Your task to perform on an android device: Go to wifi settings Image 0: 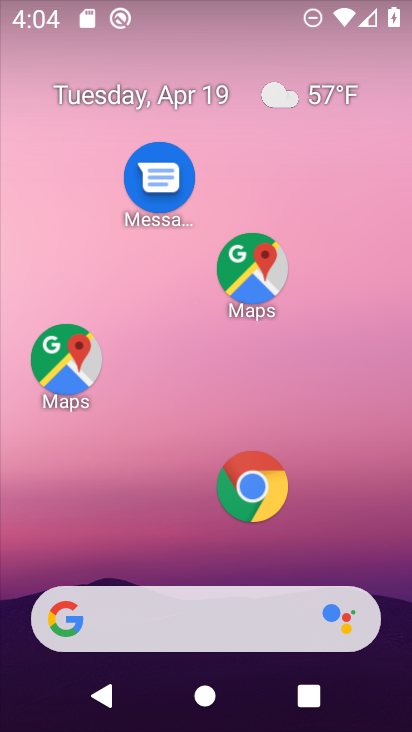
Step 0: drag from (339, 574) to (343, 77)
Your task to perform on an android device: Go to wifi settings Image 1: 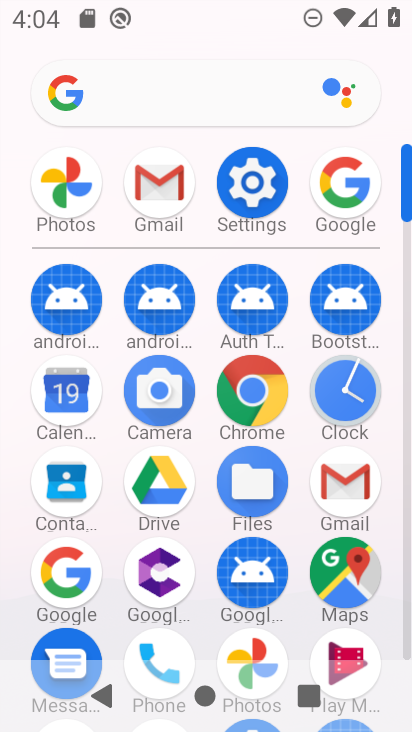
Step 1: click (257, 191)
Your task to perform on an android device: Go to wifi settings Image 2: 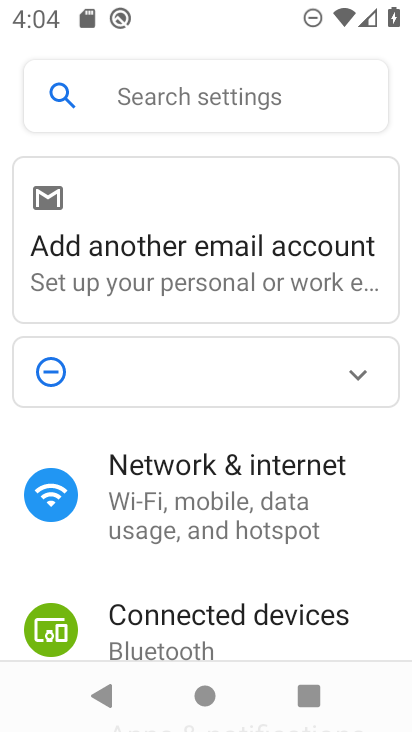
Step 2: drag from (193, 591) to (219, 444)
Your task to perform on an android device: Go to wifi settings Image 3: 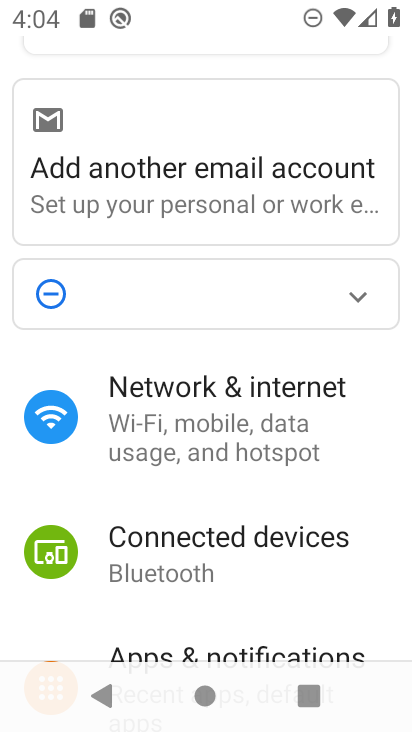
Step 3: click (194, 444)
Your task to perform on an android device: Go to wifi settings Image 4: 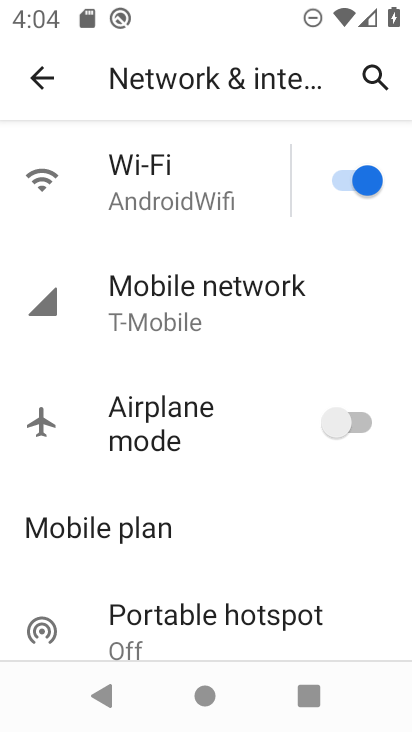
Step 4: click (214, 200)
Your task to perform on an android device: Go to wifi settings Image 5: 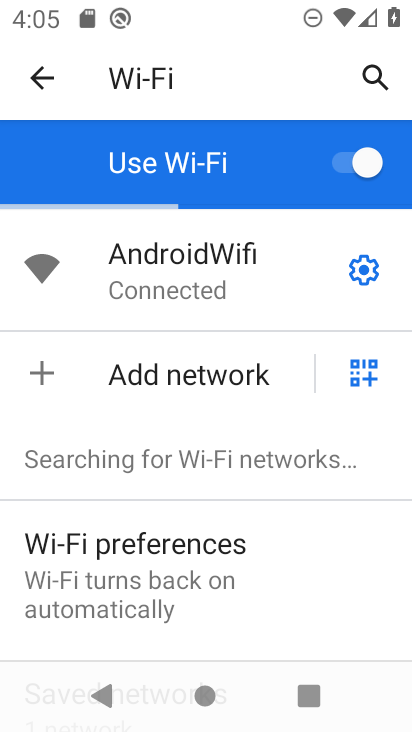
Step 5: task complete